Your task to perform on an android device: Go to Wikipedia Image 0: 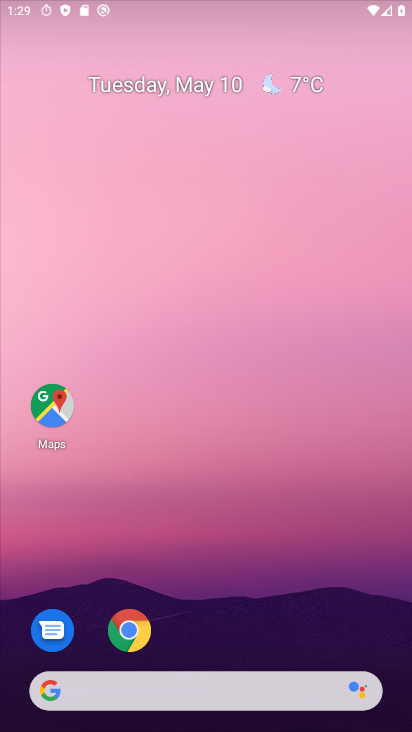
Step 0: drag from (188, 684) to (174, 309)
Your task to perform on an android device: Go to Wikipedia Image 1: 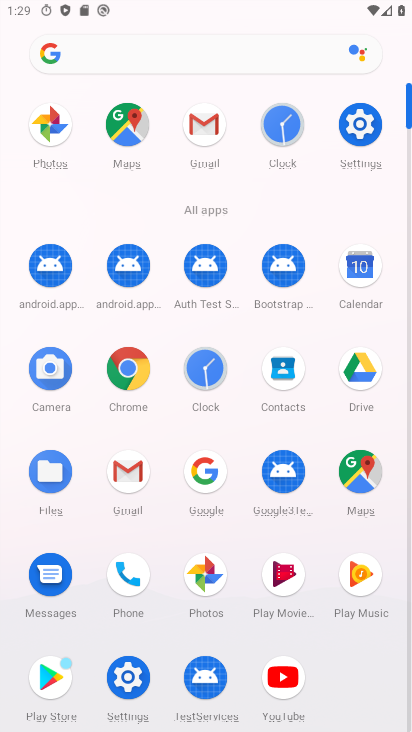
Step 1: click (129, 380)
Your task to perform on an android device: Go to Wikipedia Image 2: 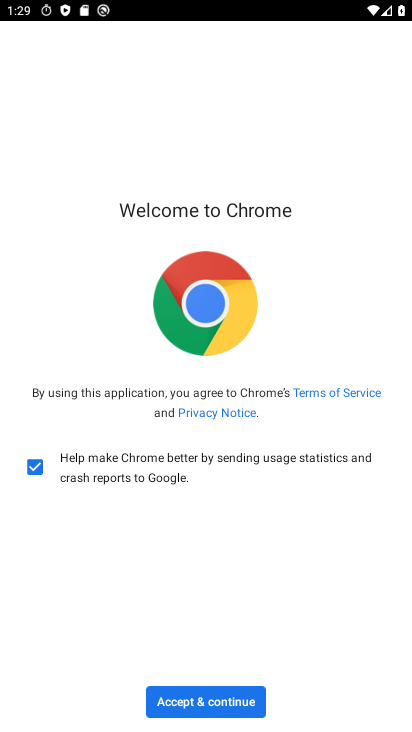
Step 2: click (187, 710)
Your task to perform on an android device: Go to Wikipedia Image 3: 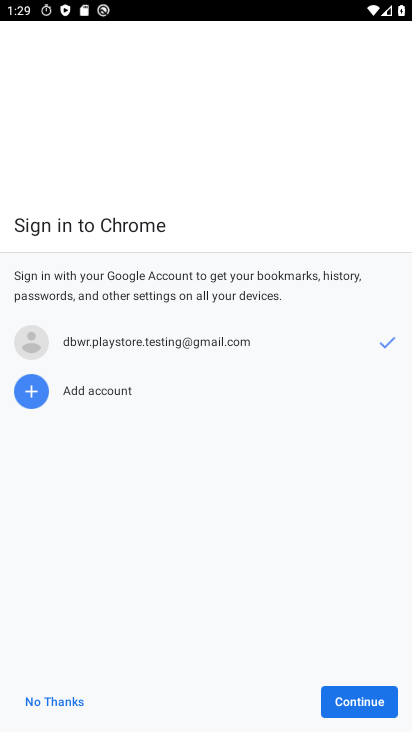
Step 3: click (373, 701)
Your task to perform on an android device: Go to Wikipedia Image 4: 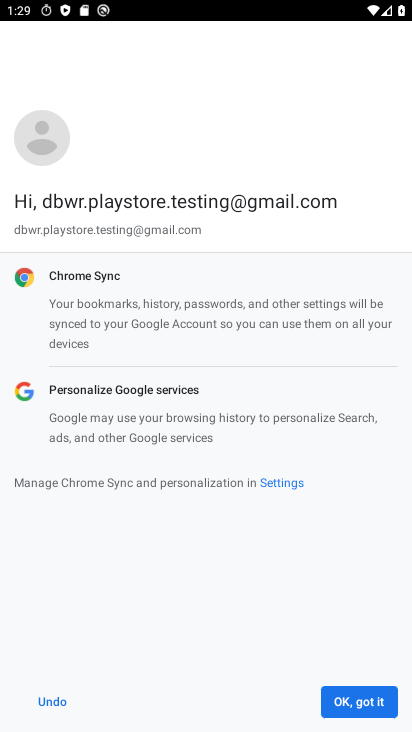
Step 4: click (373, 701)
Your task to perform on an android device: Go to Wikipedia Image 5: 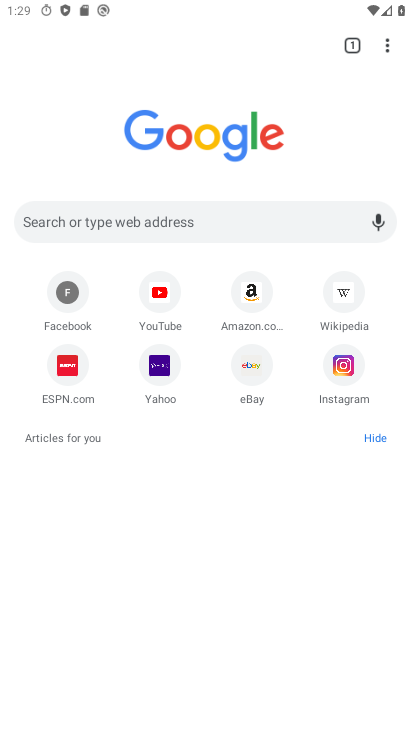
Step 5: click (336, 297)
Your task to perform on an android device: Go to Wikipedia Image 6: 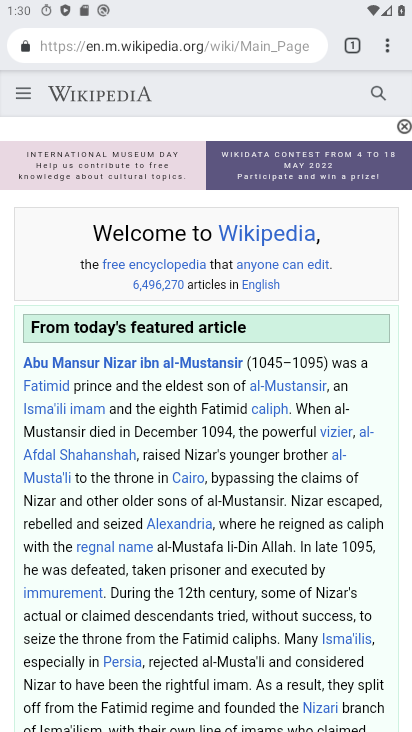
Step 6: task complete